Your task to perform on an android device: Search for a 1/4" hex shank drill bit on Lowe's. Image 0: 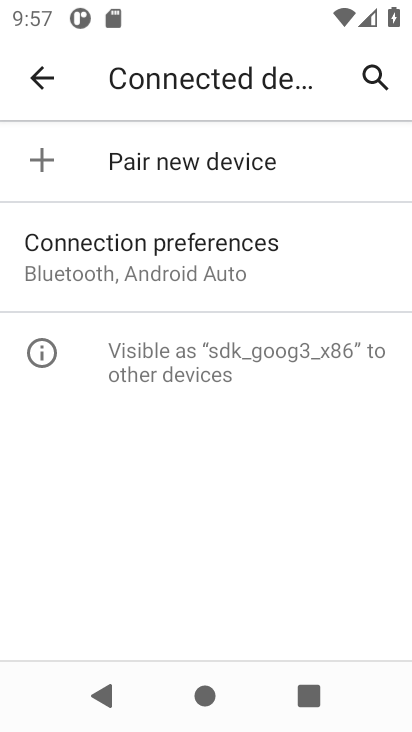
Step 0: click (284, 145)
Your task to perform on an android device: Search for a 1/4" hex shank drill bit on Lowe's. Image 1: 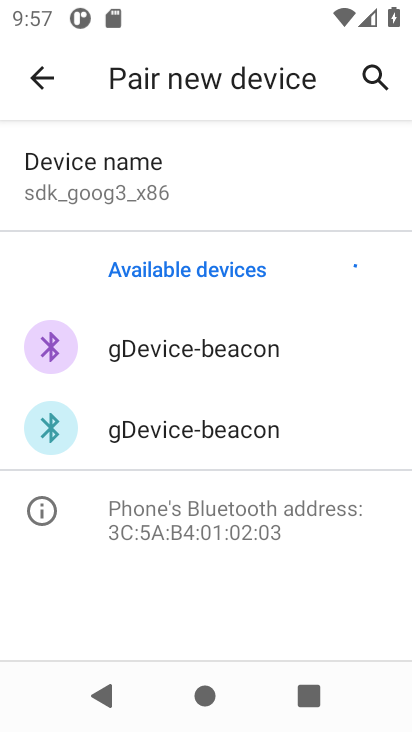
Step 1: task complete